Your task to perform on an android device: Add "bose soundlink mini" to the cart on amazon, then select checkout. Image 0: 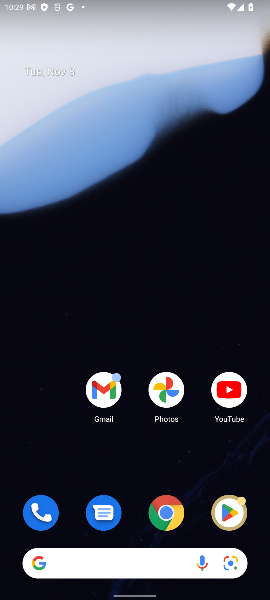
Step 0: click (162, 513)
Your task to perform on an android device: Add "bose soundlink mini" to the cart on amazon, then select checkout. Image 1: 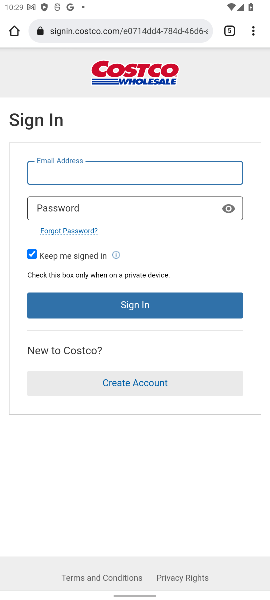
Step 1: click (228, 28)
Your task to perform on an android device: Add "bose soundlink mini" to the cart on amazon, then select checkout. Image 2: 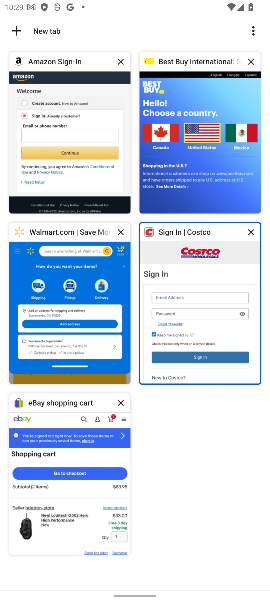
Step 2: click (105, 134)
Your task to perform on an android device: Add "bose soundlink mini" to the cart on amazon, then select checkout. Image 3: 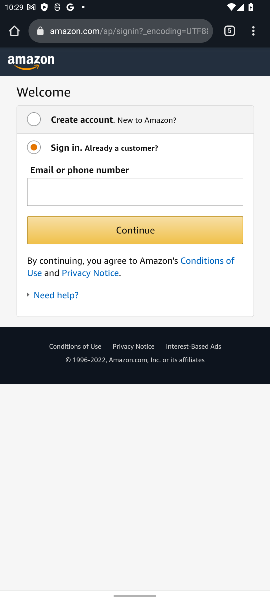
Step 3: press back button
Your task to perform on an android device: Add "bose soundlink mini" to the cart on amazon, then select checkout. Image 4: 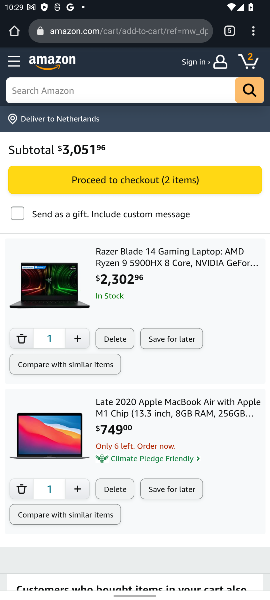
Step 4: click (61, 90)
Your task to perform on an android device: Add "bose soundlink mini" to the cart on amazon, then select checkout. Image 5: 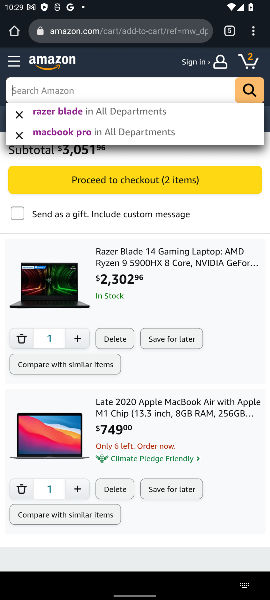
Step 5: type "bose soundlink mini"
Your task to perform on an android device: Add "bose soundlink mini" to the cart on amazon, then select checkout. Image 6: 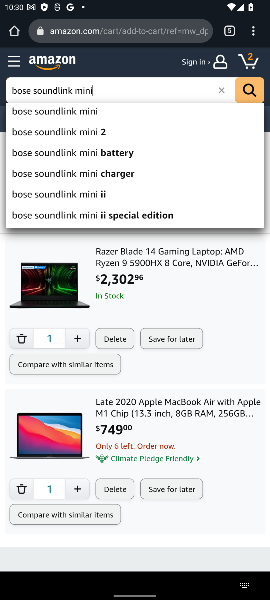
Step 6: click (87, 111)
Your task to perform on an android device: Add "bose soundlink mini" to the cart on amazon, then select checkout. Image 7: 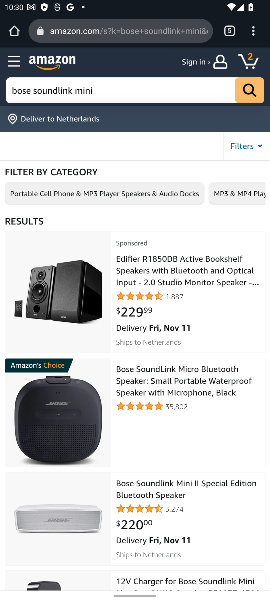
Step 7: click (170, 380)
Your task to perform on an android device: Add "bose soundlink mini" to the cart on amazon, then select checkout. Image 8: 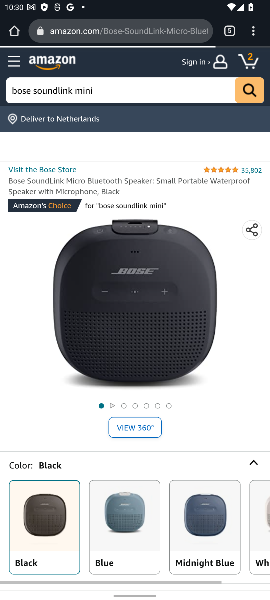
Step 8: drag from (131, 480) to (180, 242)
Your task to perform on an android device: Add "bose soundlink mini" to the cart on amazon, then select checkout. Image 9: 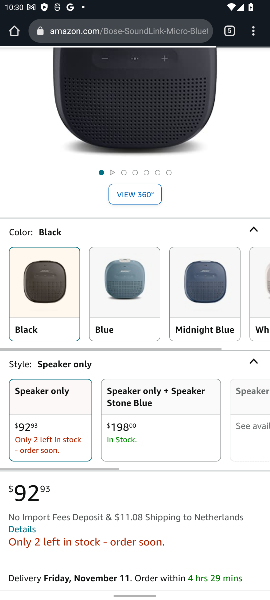
Step 9: drag from (180, 479) to (201, 209)
Your task to perform on an android device: Add "bose soundlink mini" to the cart on amazon, then select checkout. Image 10: 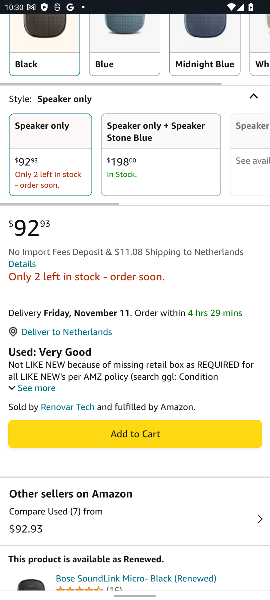
Step 10: click (150, 433)
Your task to perform on an android device: Add "bose soundlink mini" to the cart on amazon, then select checkout. Image 11: 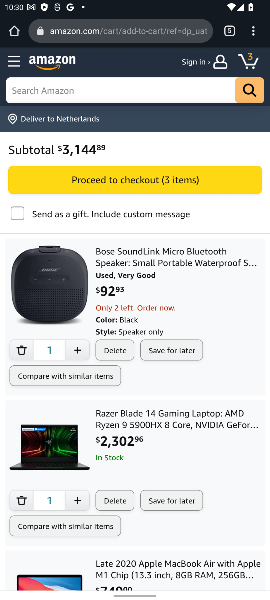
Step 11: click (191, 184)
Your task to perform on an android device: Add "bose soundlink mini" to the cart on amazon, then select checkout. Image 12: 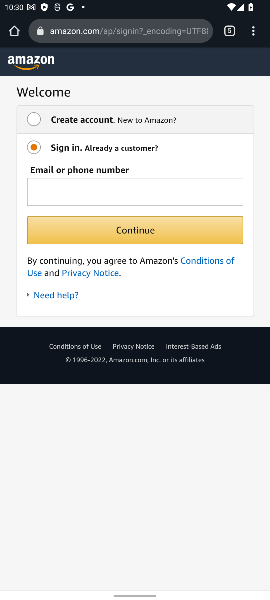
Step 12: task complete